Your task to perform on an android device: Go to ESPN.com Image 0: 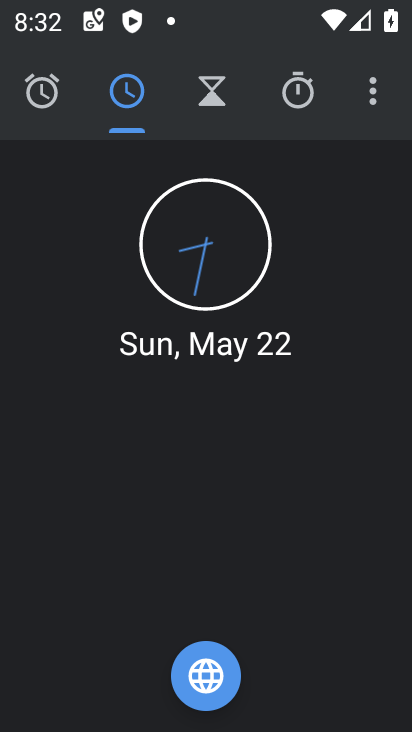
Step 0: press home button
Your task to perform on an android device: Go to ESPN.com Image 1: 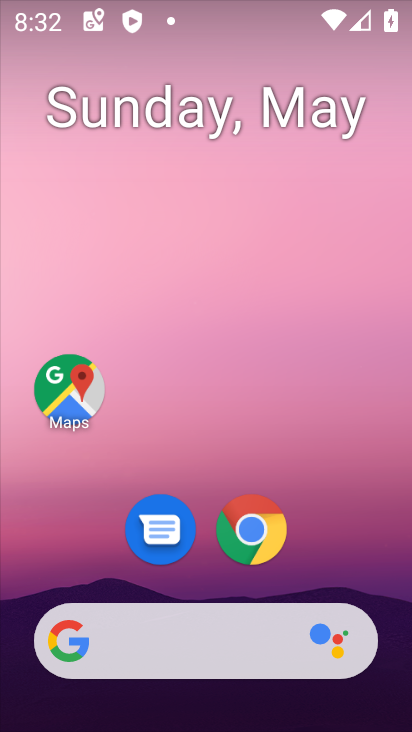
Step 1: click (244, 531)
Your task to perform on an android device: Go to ESPN.com Image 2: 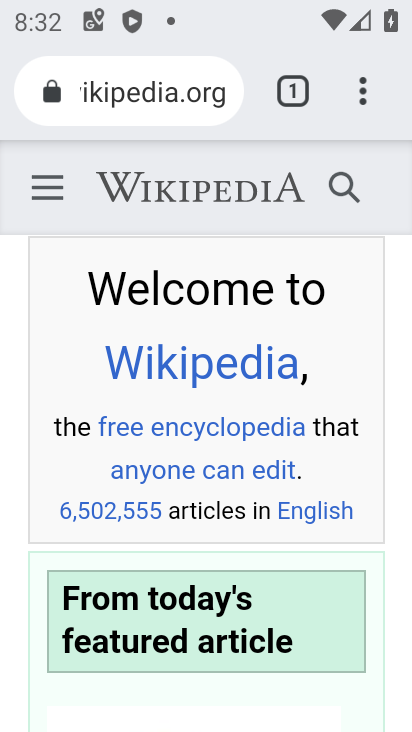
Step 2: click (128, 90)
Your task to perform on an android device: Go to ESPN.com Image 3: 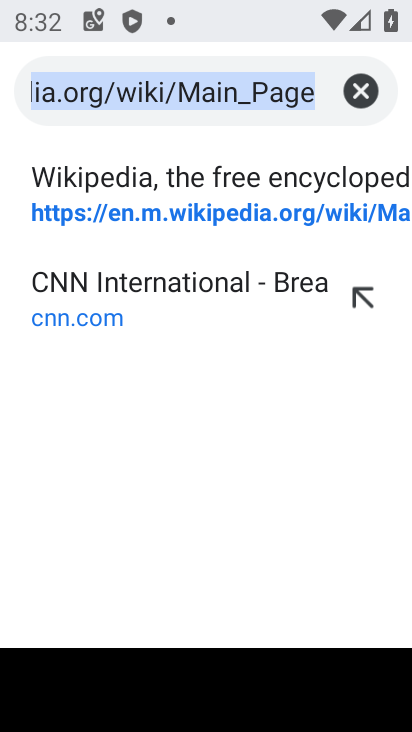
Step 3: click (351, 88)
Your task to perform on an android device: Go to ESPN.com Image 4: 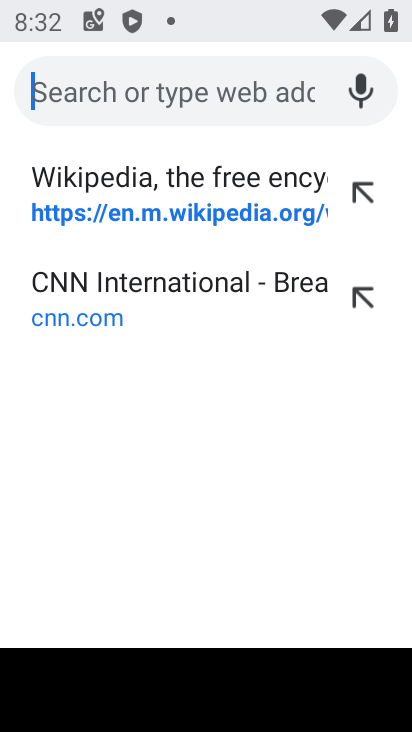
Step 4: type "espn.com"
Your task to perform on an android device: Go to ESPN.com Image 5: 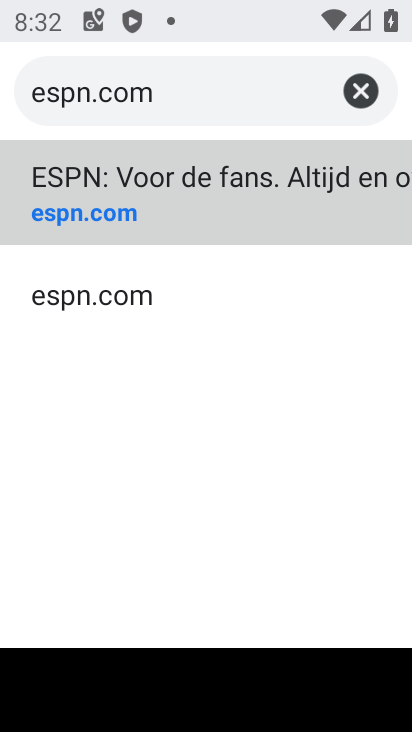
Step 5: click (55, 297)
Your task to perform on an android device: Go to ESPN.com Image 6: 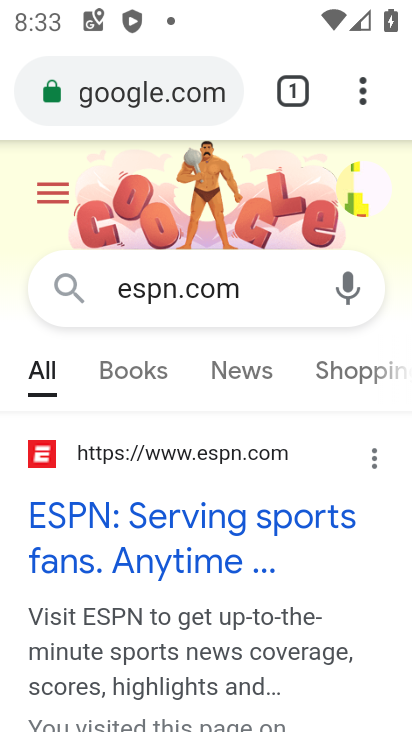
Step 6: click (52, 465)
Your task to perform on an android device: Go to ESPN.com Image 7: 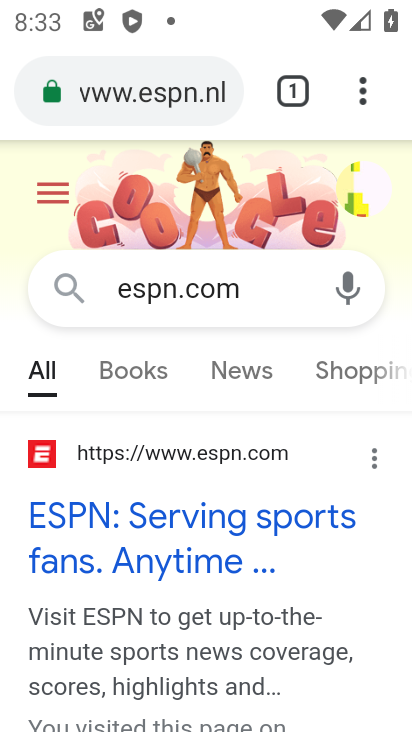
Step 7: click (100, 453)
Your task to perform on an android device: Go to ESPN.com Image 8: 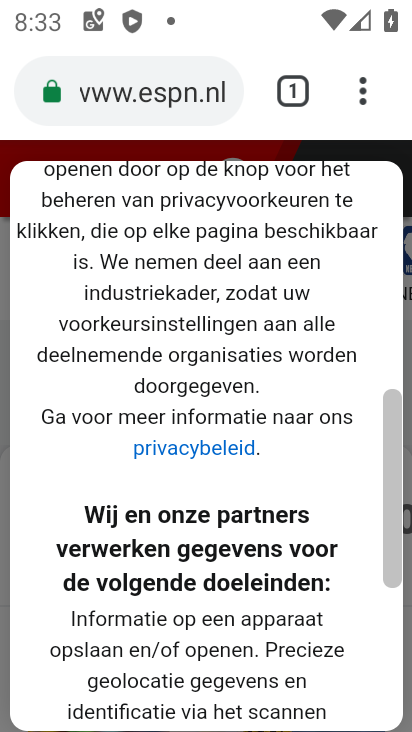
Step 8: task complete